Your task to perform on an android device: open wifi settings Image 0: 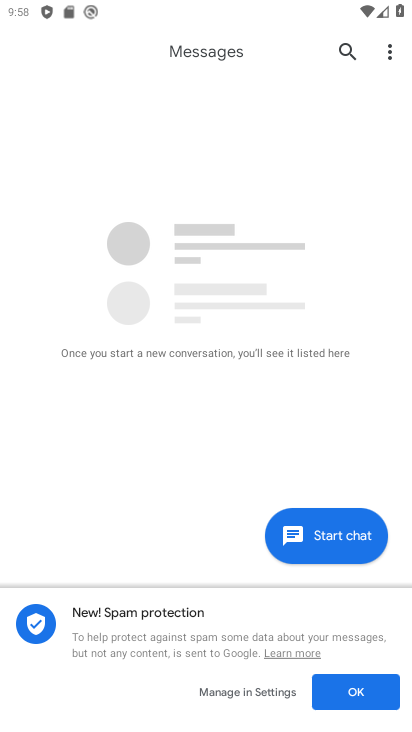
Step 0: press home button
Your task to perform on an android device: open wifi settings Image 1: 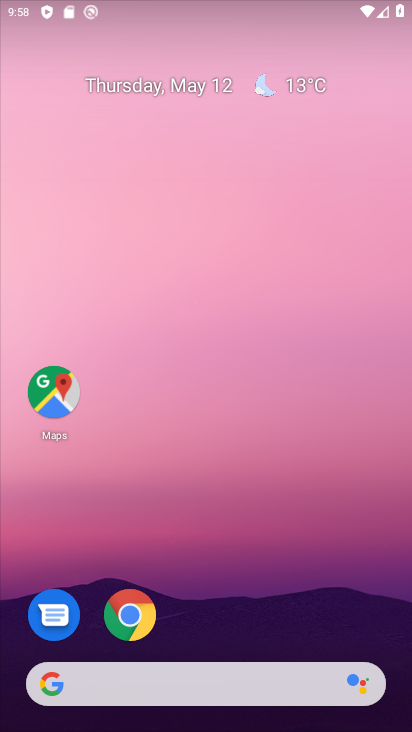
Step 1: drag from (335, 537) to (273, 0)
Your task to perform on an android device: open wifi settings Image 2: 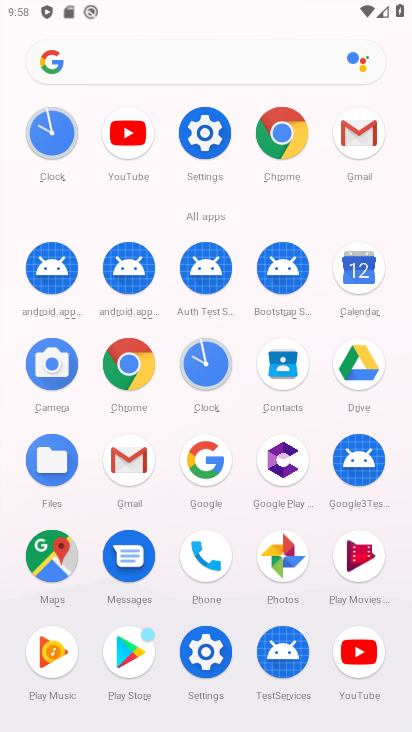
Step 2: click (190, 139)
Your task to perform on an android device: open wifi settings Image 3: 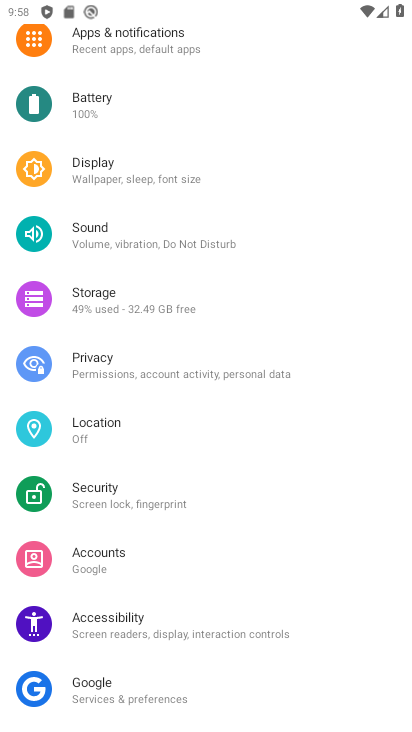
Step 3: drag from (190, 138) to (236, 576)
Your task to perform on an android device: open wifi settings Image 4: 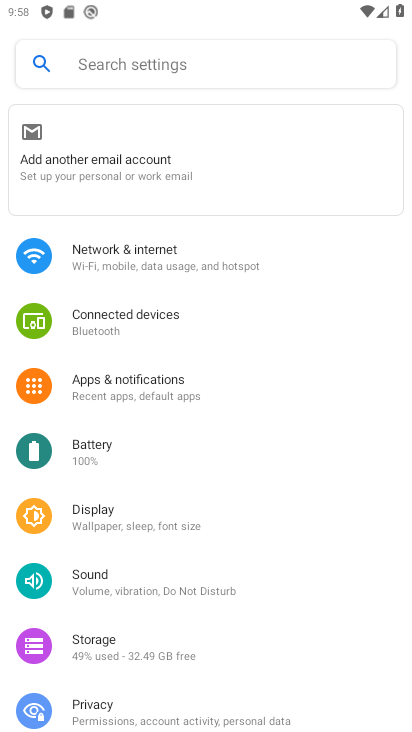
Step 4: click (126, 270)
Your task to perform on an android device: open wifi settings Image 5: 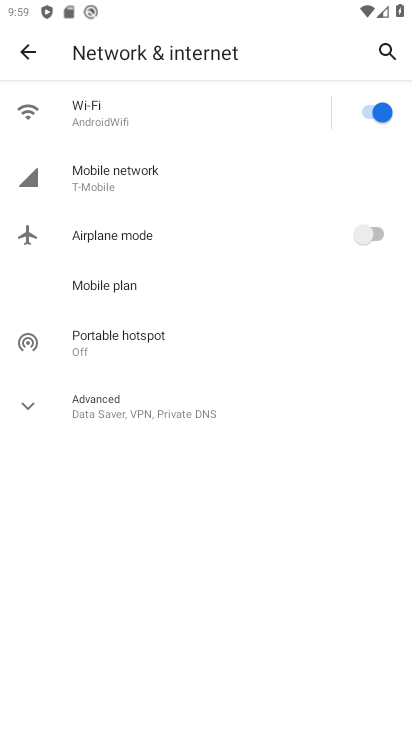
Step 5: click (159, 99)
Your task to perform on an android device: open wifi settings Image 6: 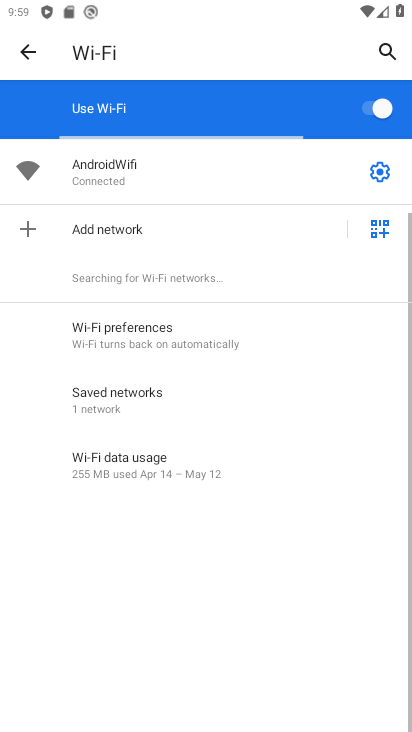
Step 6: task complete